Your task to perform on an android device: open device folders in google photos Image 0: 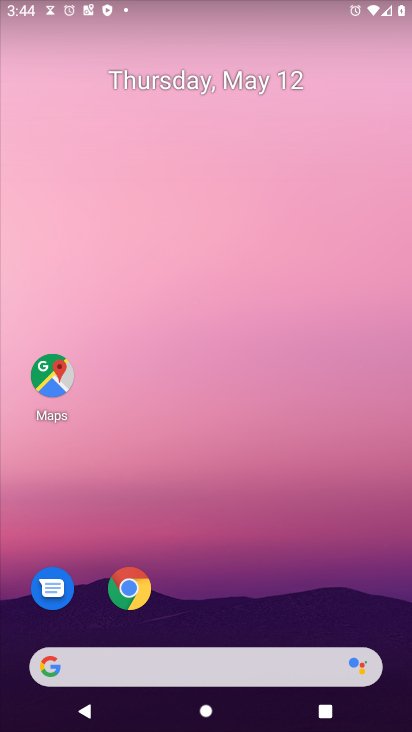
Step 0: drag from (197, 558) to (161, 89)
Your task to perform on an android device: open device folders in google photos Image 1: 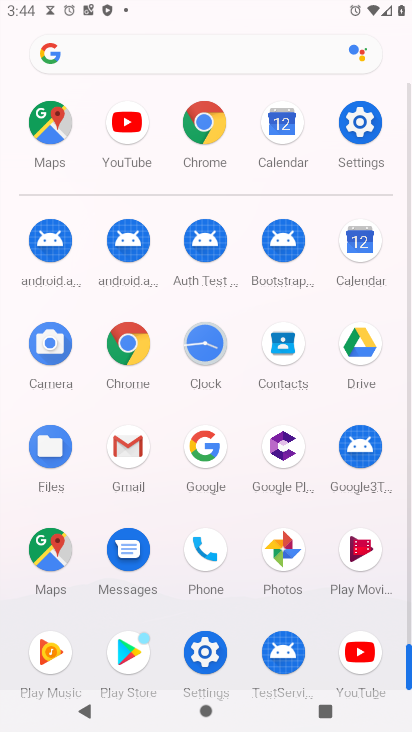
Step 1: drag from (20, 591) to (27, 317)
Your task to perform on an android device: open device folders in google photos Image 2: 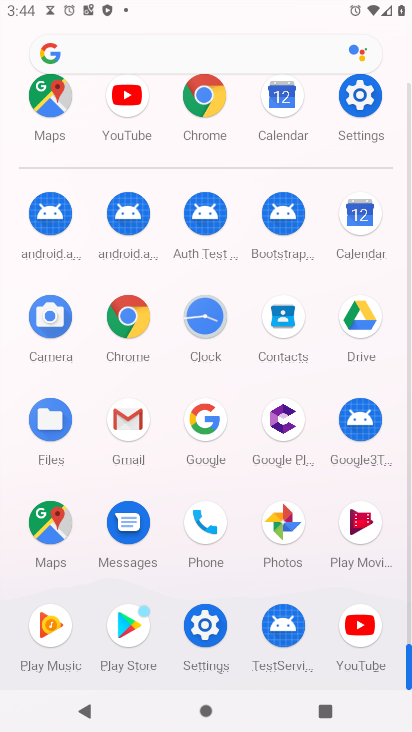
Step 2: click (287, 523)
Your task to perform on an android device: open device folders in google photos Image 3: 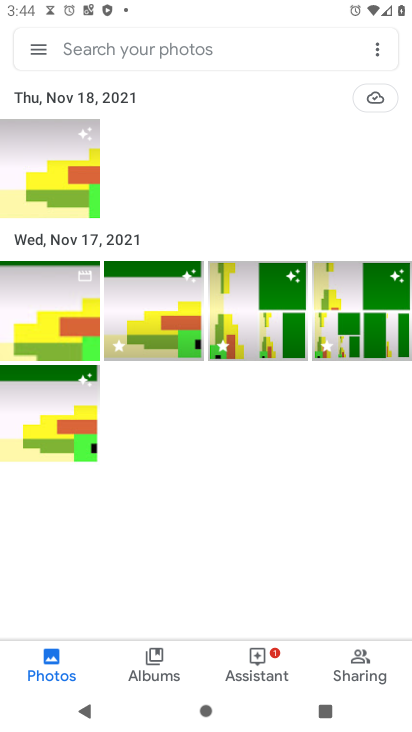
Step 3: click (32, 46)
Your task to perform on an android device: open device folders in google photos Image 4: 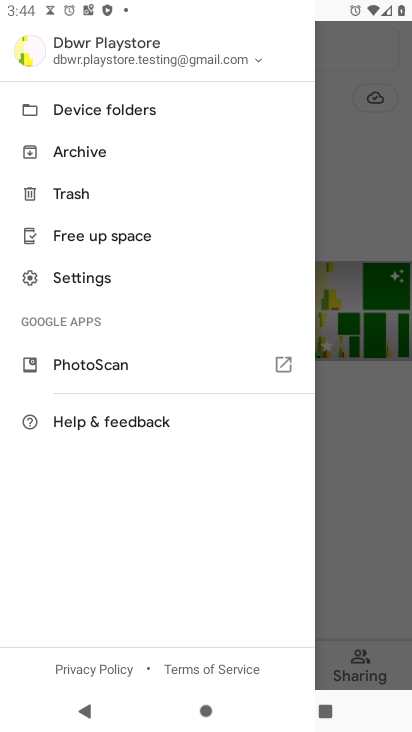
Step 4: click (108, 102)
Your task to perform on an android device: open device folders in google photos Image 5: 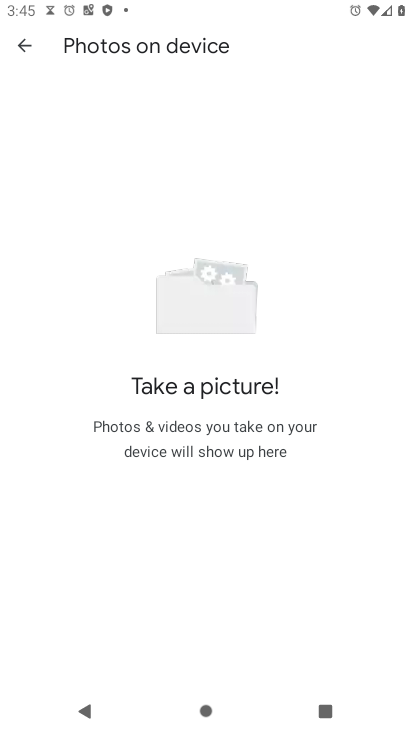
Step 5: task complete